Your task to perform on an android device: open app "Google Chat" (install if not already installed) Image 0: 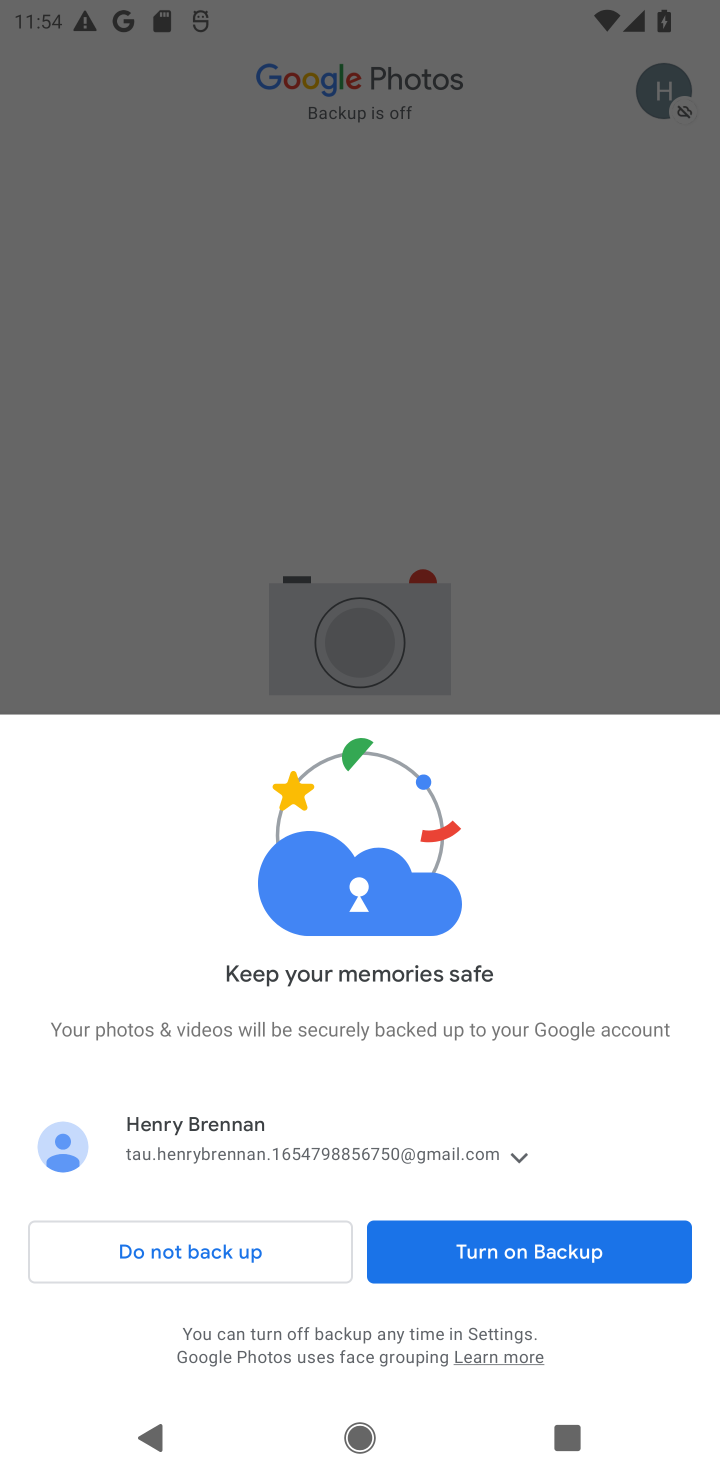
Step 0: press home button
Your task to perform on an android device: open app "Google Chat" (install if not already installed) Image 1: 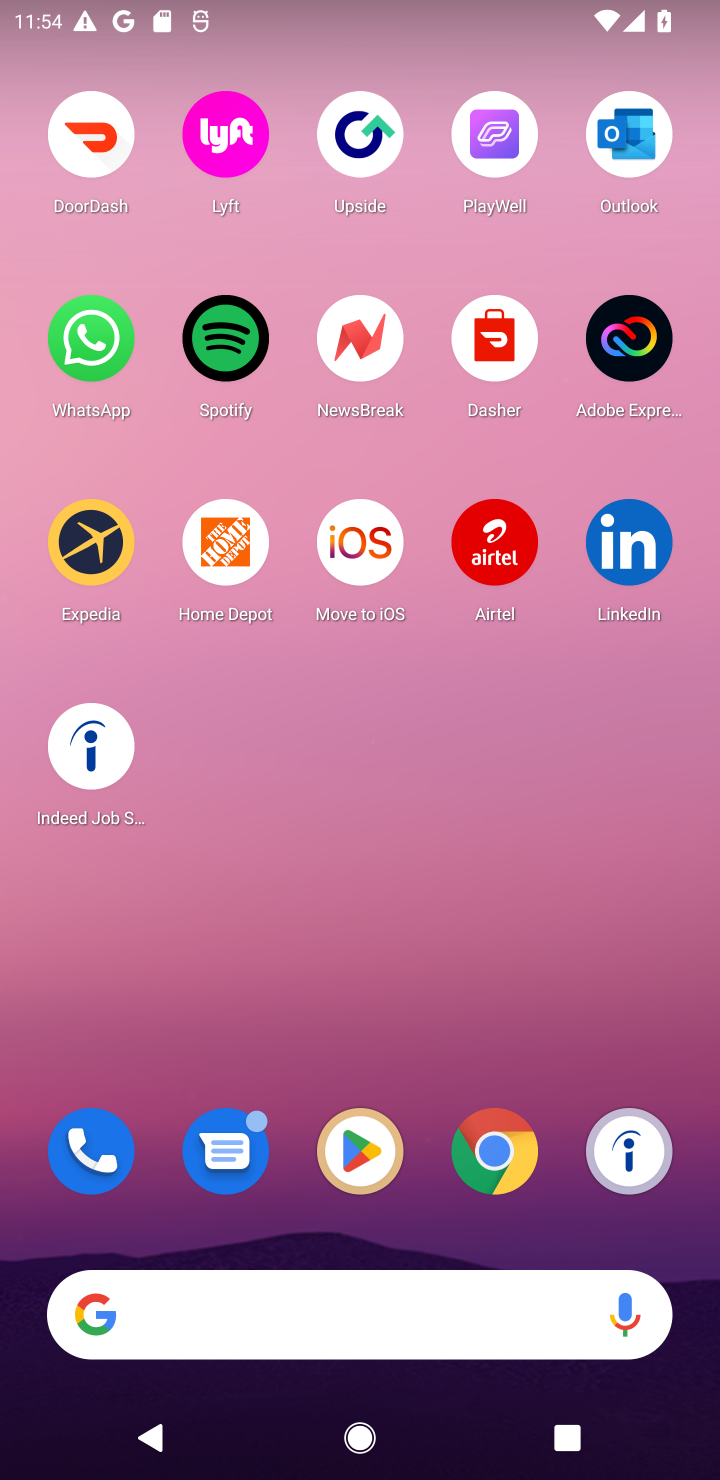
Step 1: click (343, 1142)
Your task to perform on an android device: open app "Google Chat" (install if not already installed) Image 2: 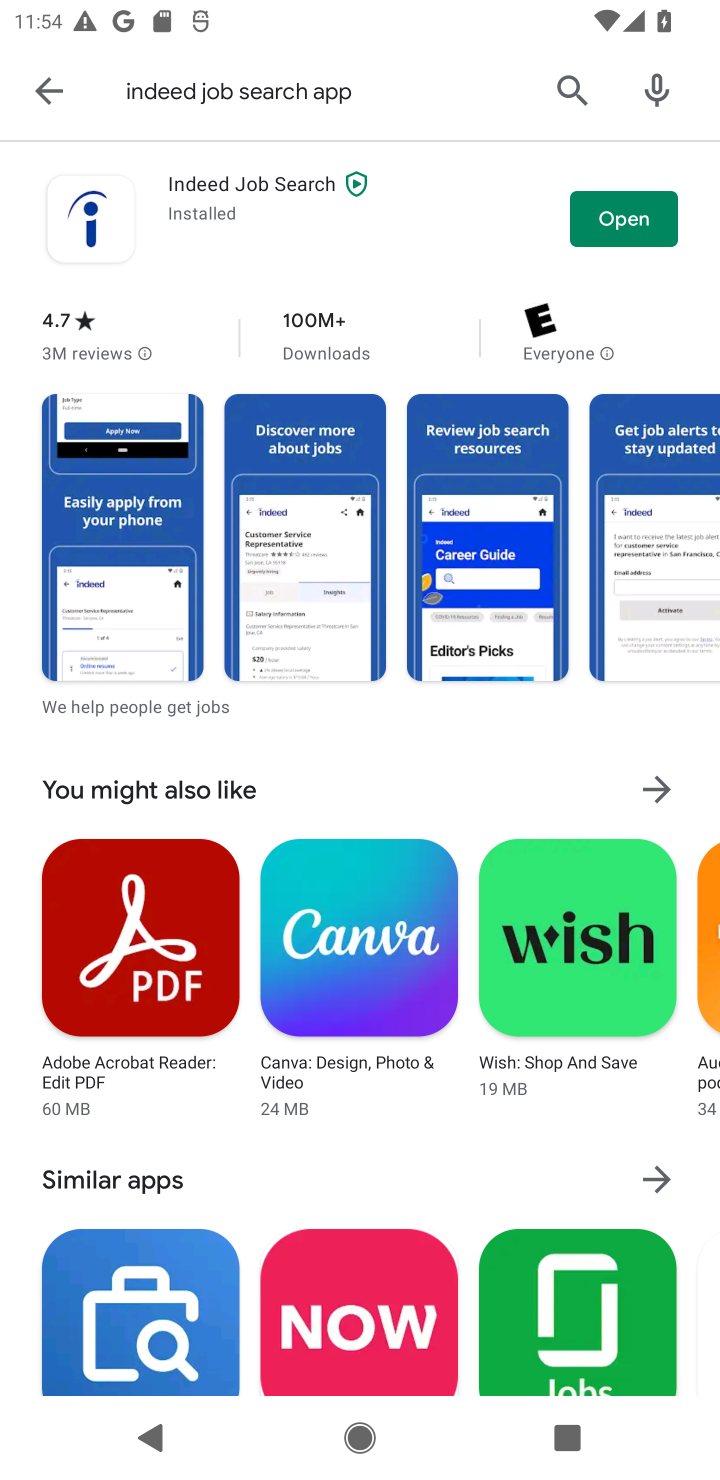
Step 2: click (562, 78)
Your task to perform on an android device: open app "Google Chat" (install if not already installed) Image 3: 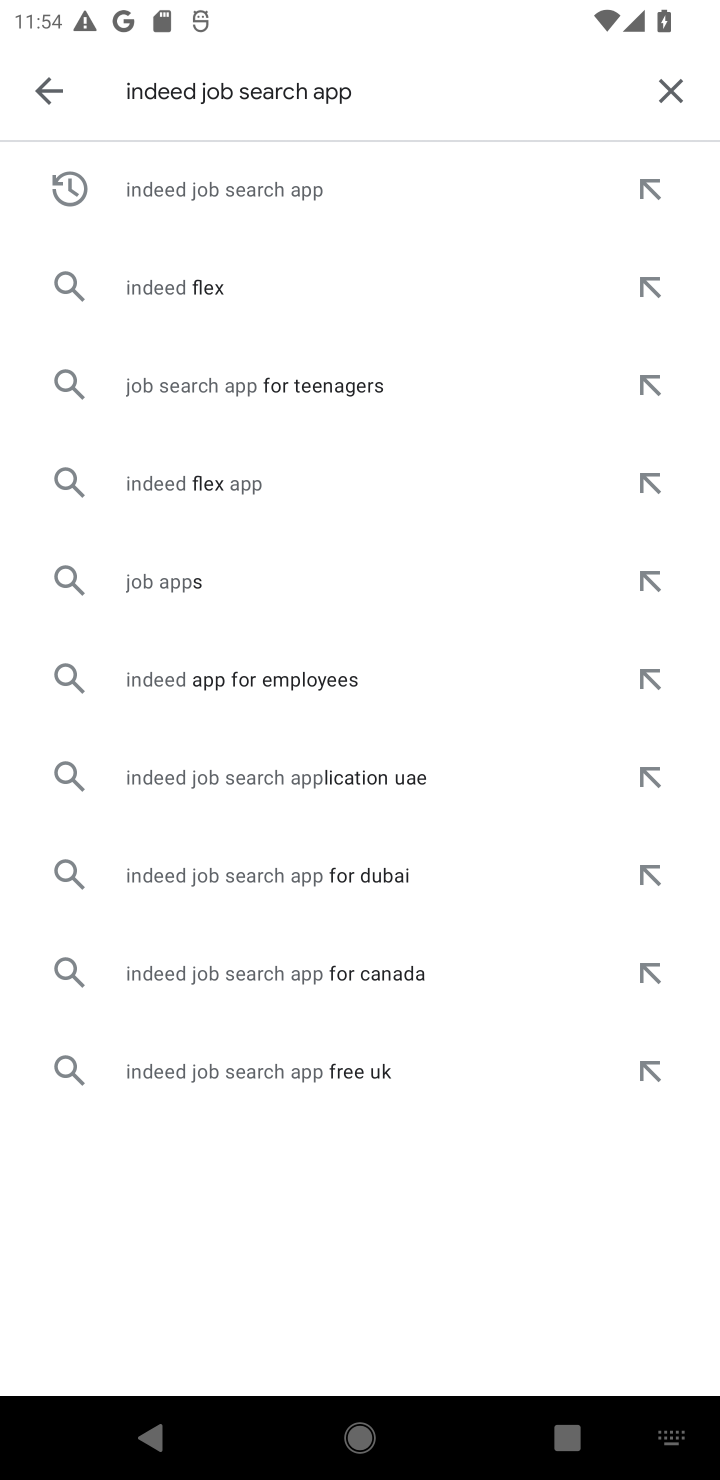
Step 3: click (660, 81)
Your task to perform on an android device: open app "Google Chat" (install if not already installed) Image 4: 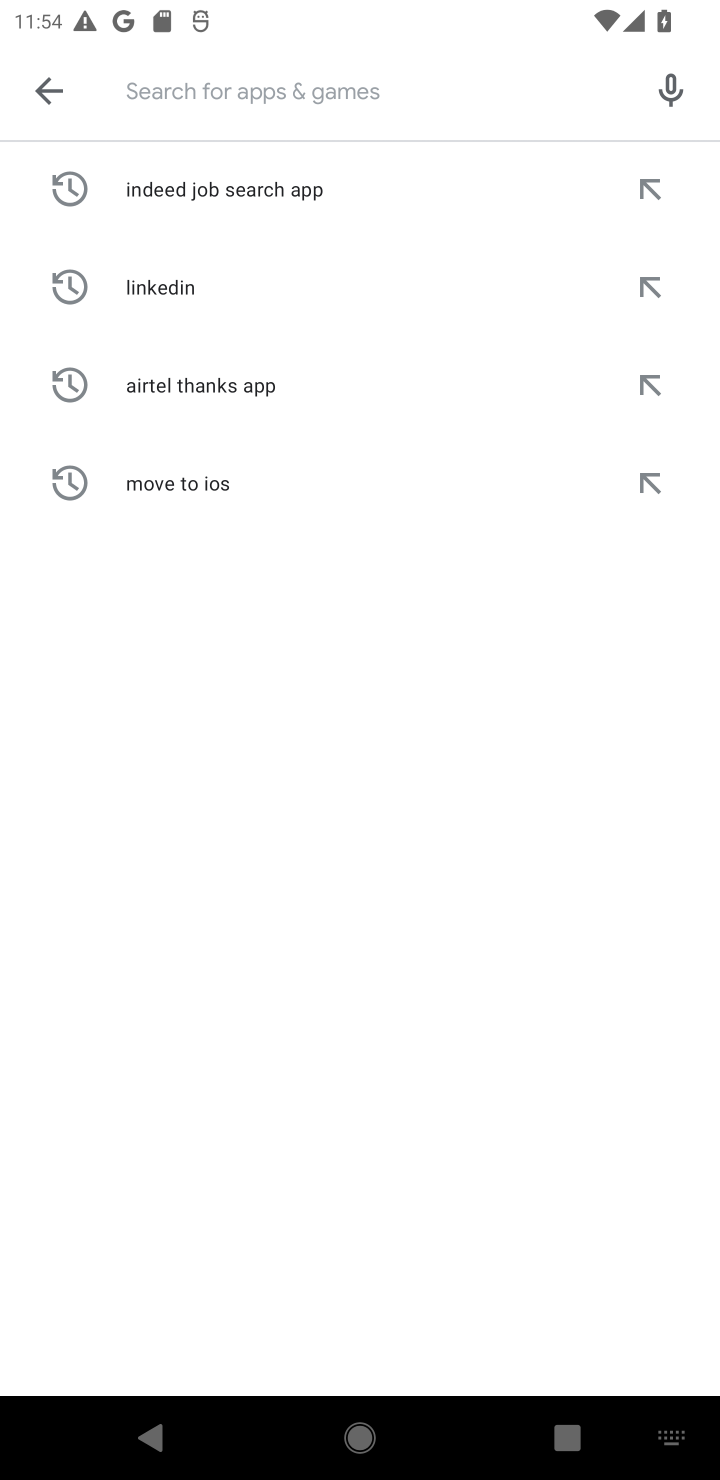
Step 4: type "Google Chat"
Your task to perform on an android device: open app "Google Chat" (install if not already installed) Image 5: 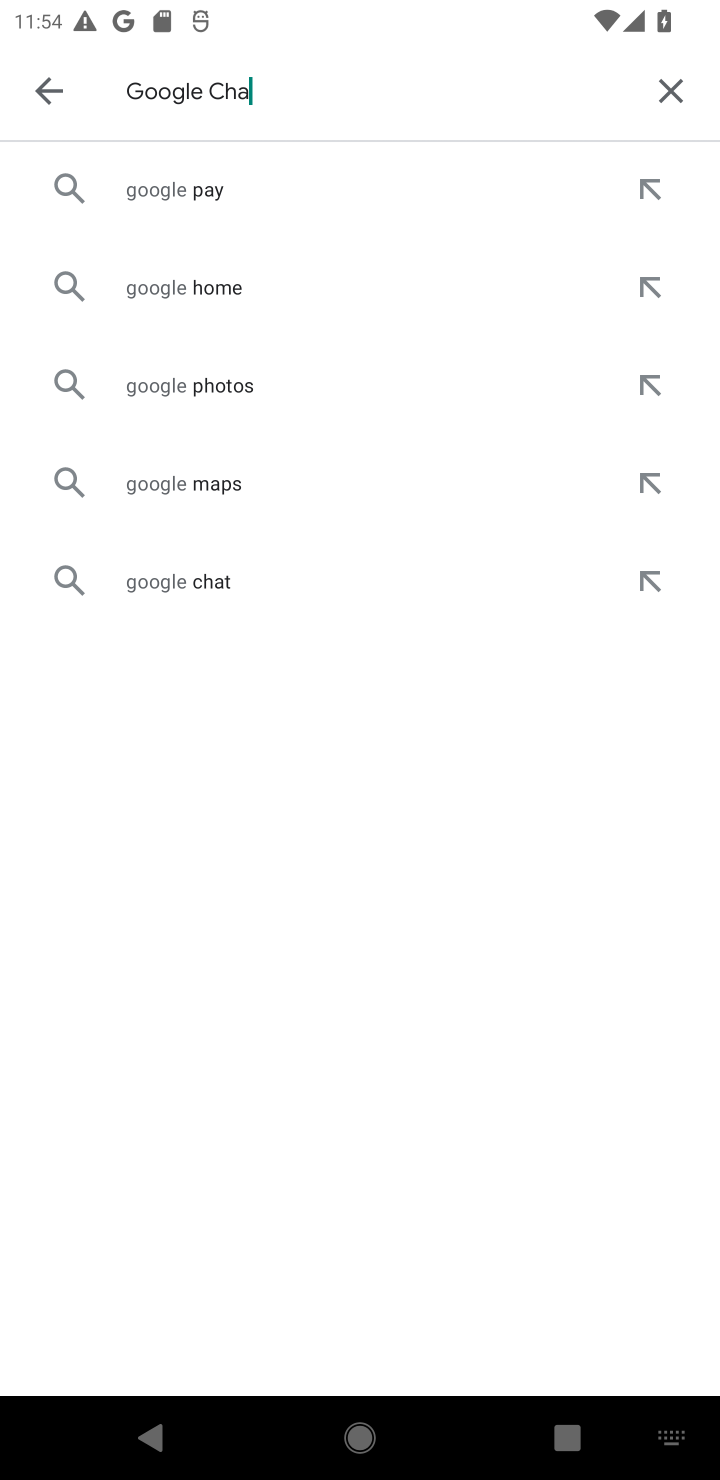
Step 5: type ""
Your task to perform on an android device: open app "Google Chat" (install if not already installed) Image 6: 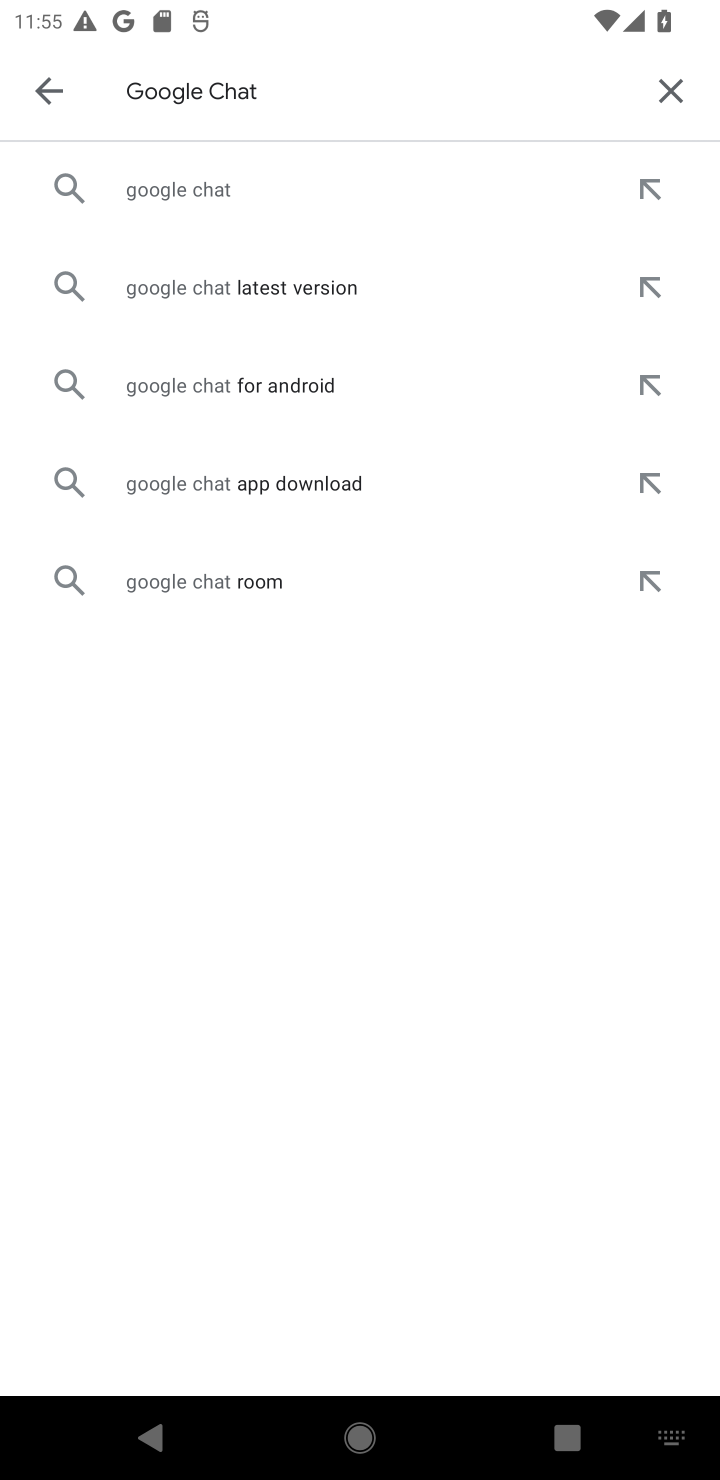
Step 6: click (180, 185)
Your task to perform on an android device: open app "Google Chat" (install if not already installed) Image 7: 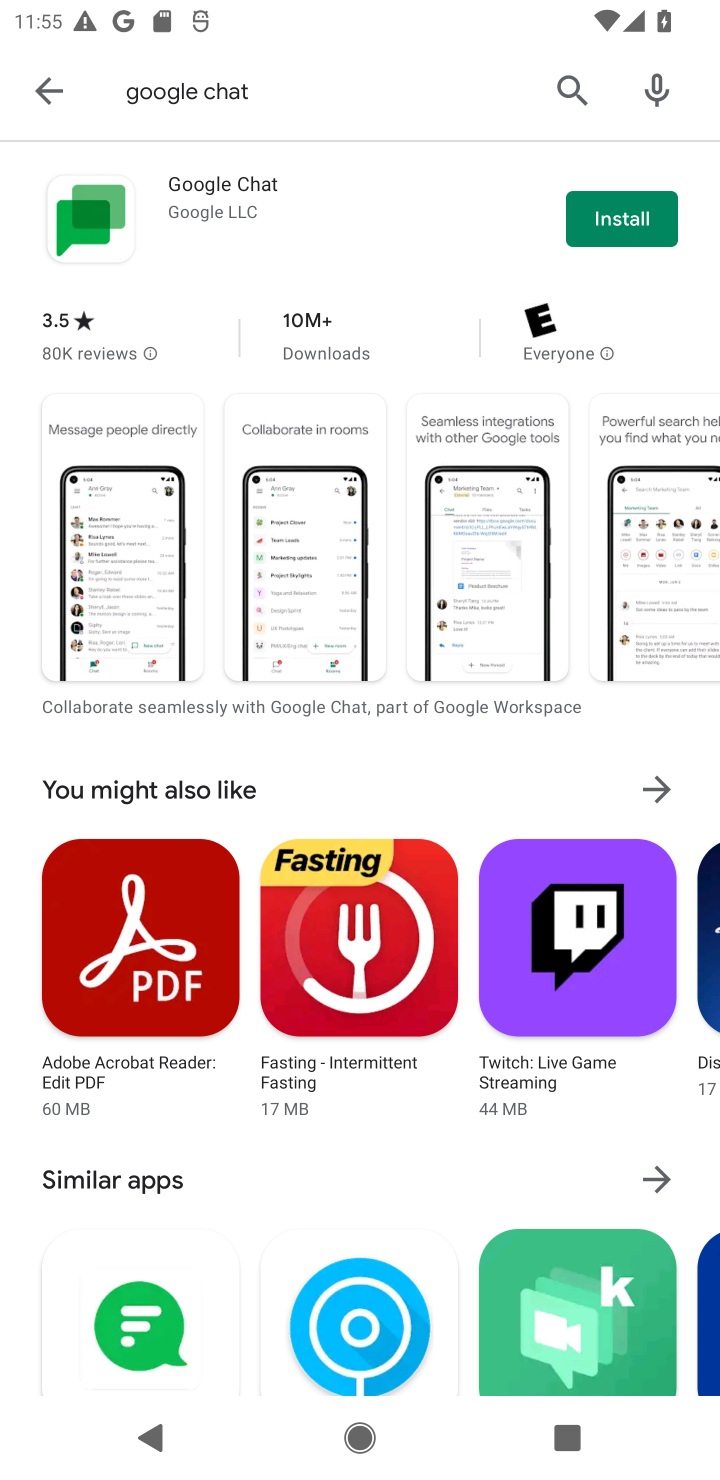
Step 7: click (630, 214)
Your task to perform on an android device: open app "Google Chat" (install if not already installed) Image 8: 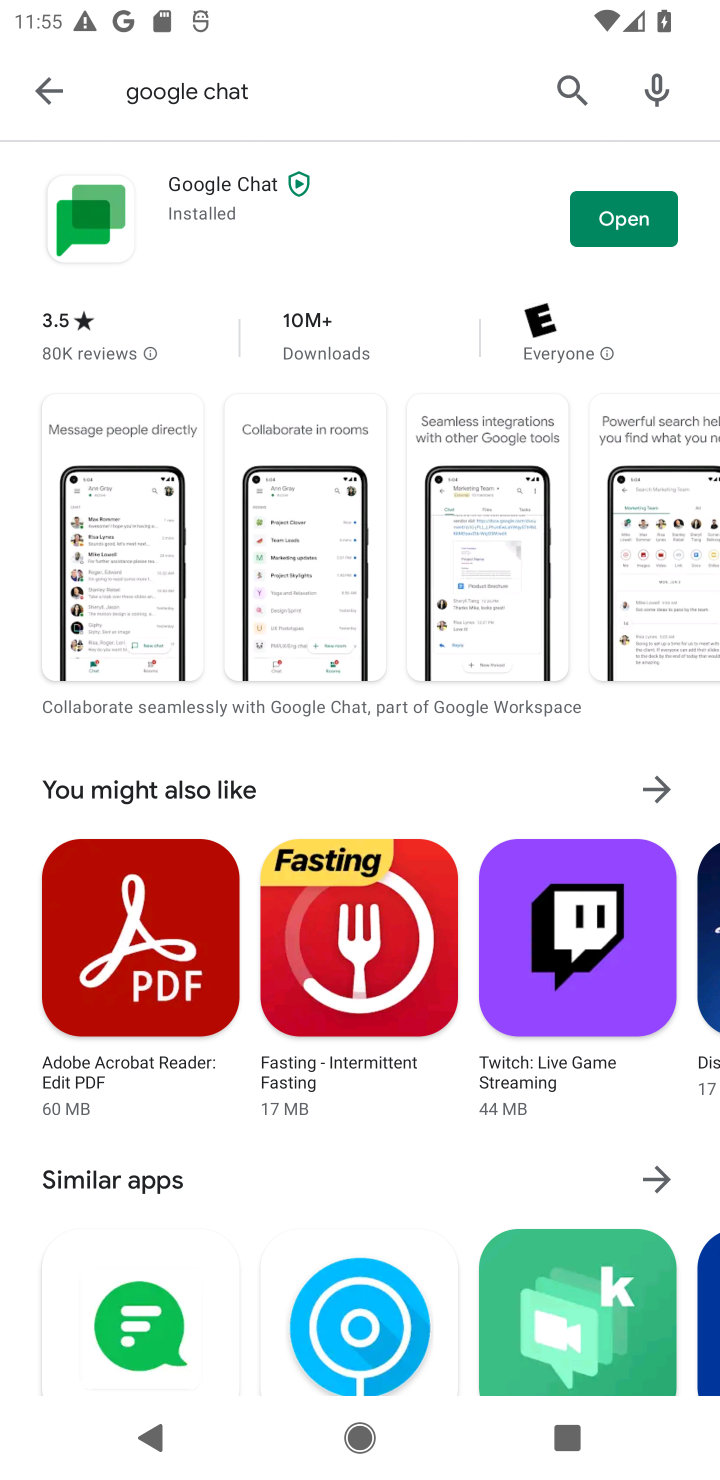
Step 8: click (630, 214)
Your task to perform on an android device: open app "Google Chat" (install if not already installed) Image 9: 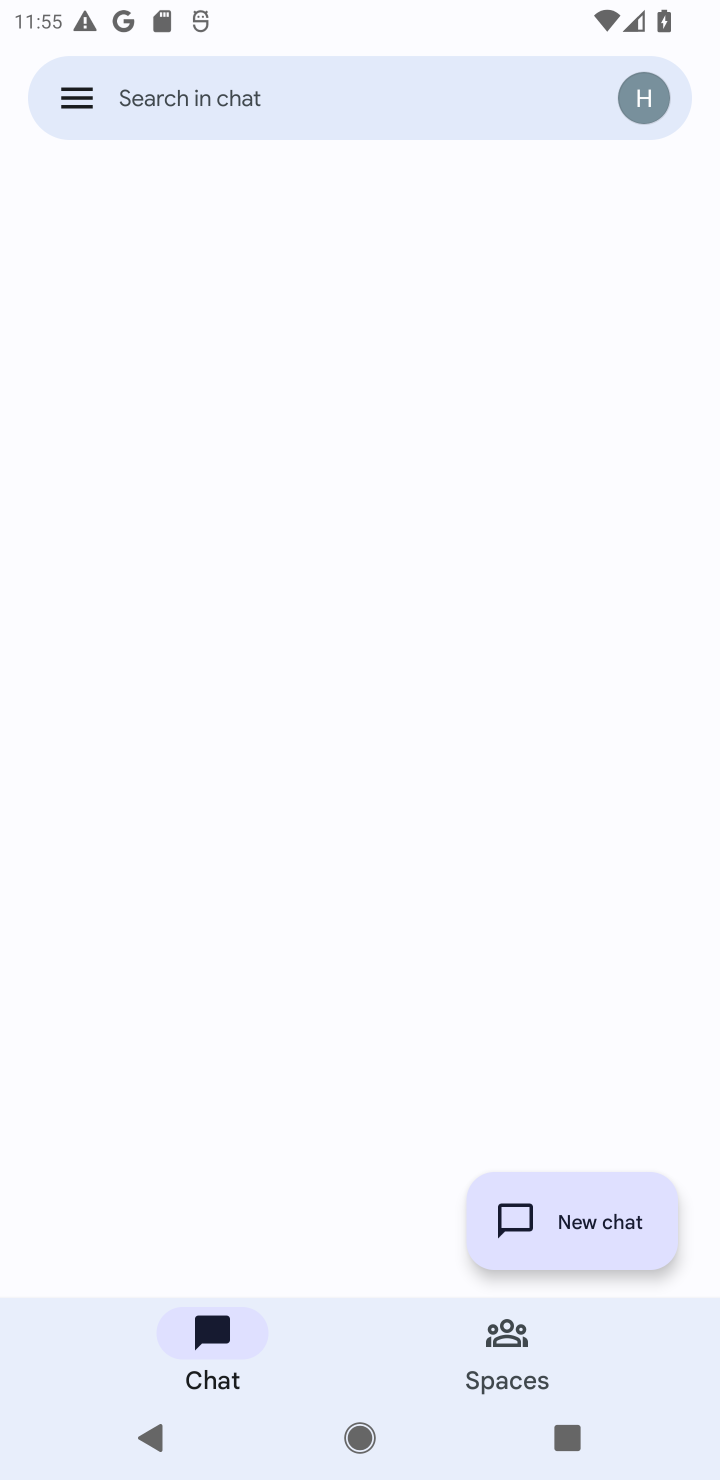
Step 9: task complete